Your task to perform on an android device: empty trash in the gmail app Image 0: 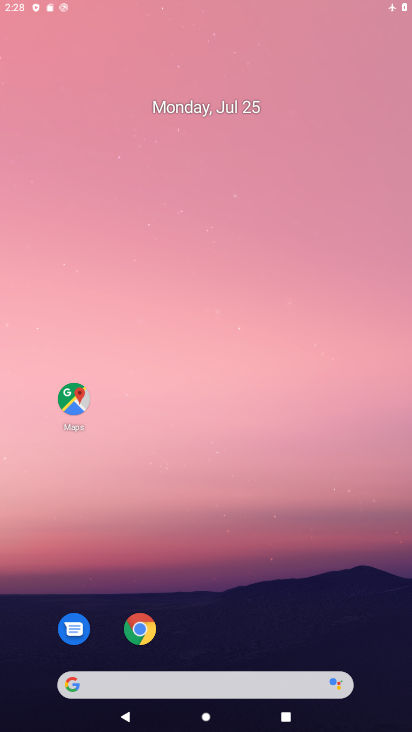
Step 0: drag from (290, 682) to (231, 185)
Your task to perform on an android device: empty trash in the gmail app Image 1: 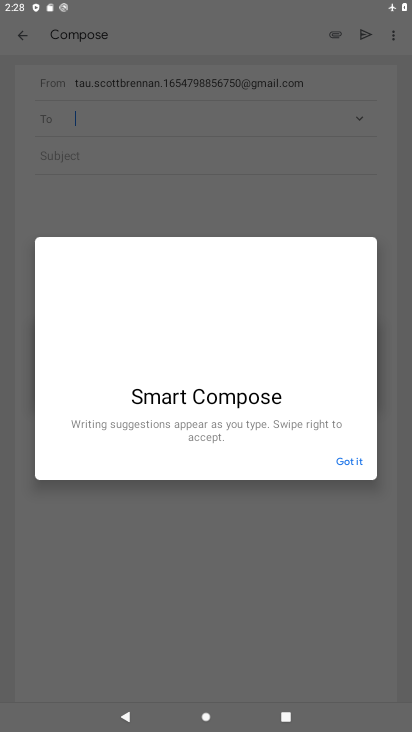
Step 1: drag from (208, 535) to (177, 217)
Your task to perform on an android device: empty trash in the gmail app Image 2: 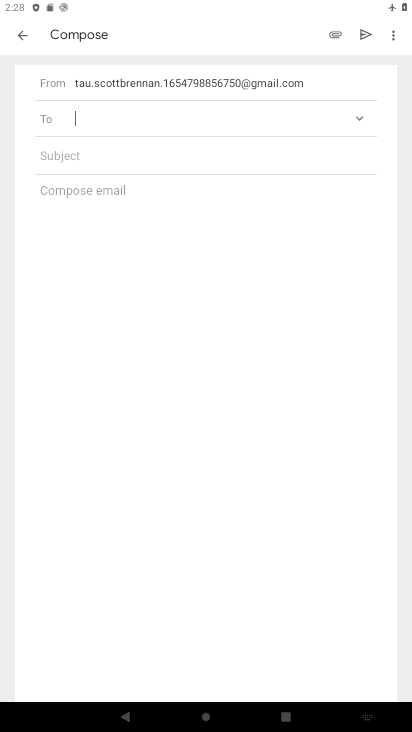
Step 2: click (10, 22)
Your task to perform on an android device: empty trash in the gmail app Image 3: 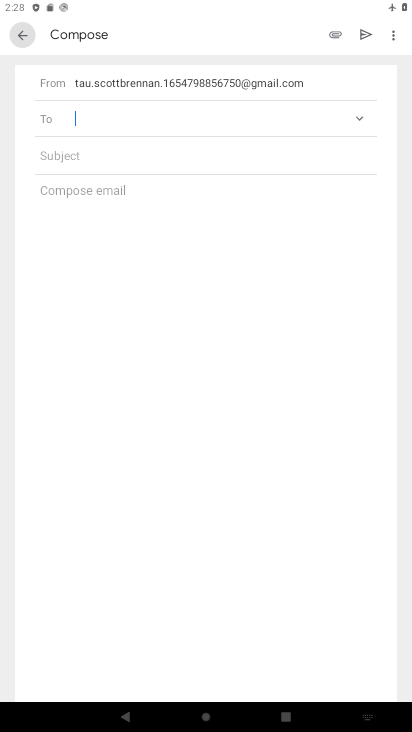
Step 3: click (19, 28)
Your task to perform on an android device: empty trash in the gmail app Image 4: 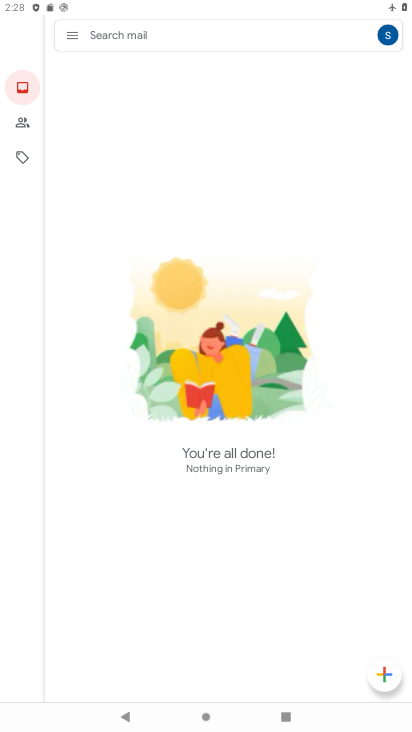
Step 4: click (67, 27)
Your task to perform on an android device: empty trash in the gmail app Image 5: 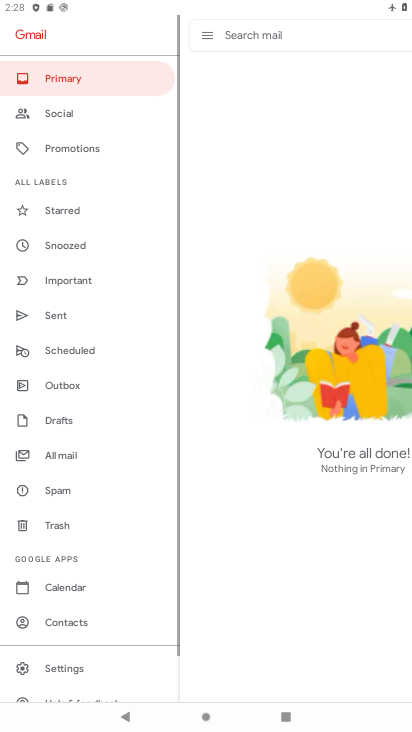
Step 5: click (76, 37)
Your task to perform on an android device: empty trash in the gmail app Image 6: 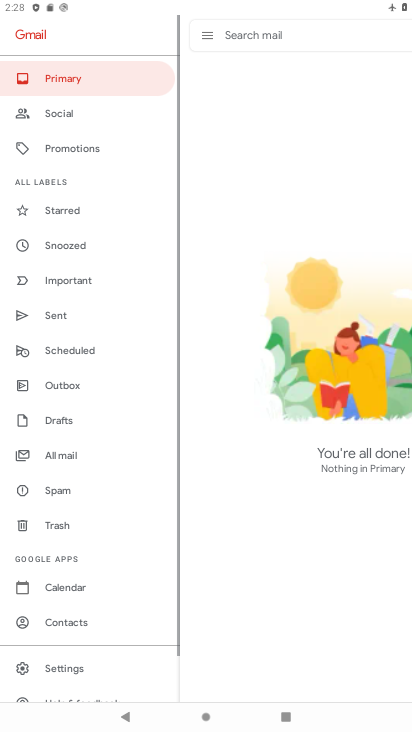
Step 6: click (77, 37)
Your task to perform on an android device: empty trash in the gmail app Image 7: 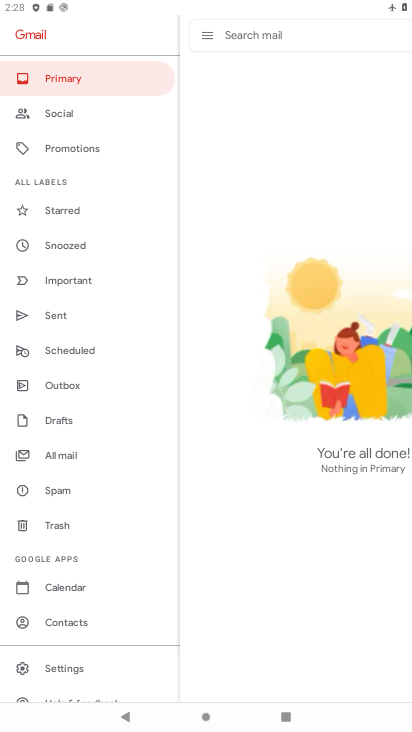
Step 7: click (77, 36)
Your task to perform on an android device: empty trash in the gmail app Image 8: 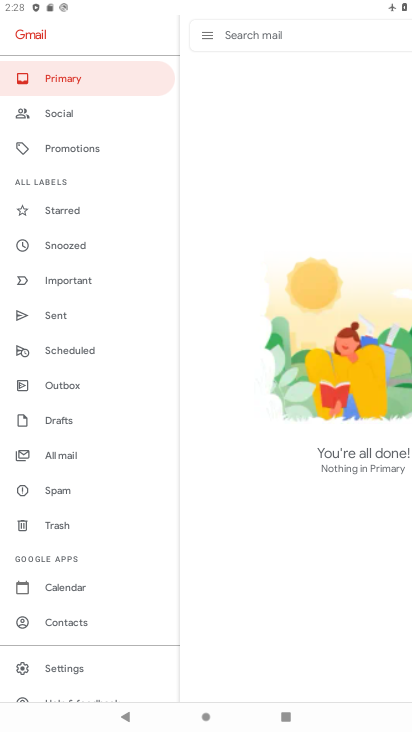
Step 8: click (68, 668)
Your task to perform on an android device: empty trash in the gmail app Image 9: 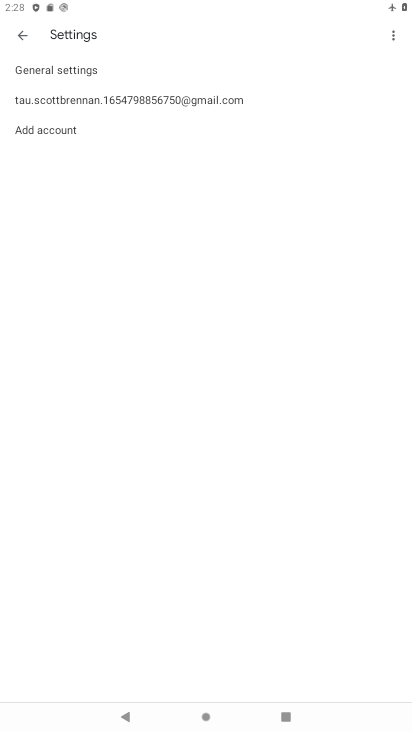
Step 9: click (58, 104)
Your task to perform on an android device: empty trash in the gmail app Image 10: 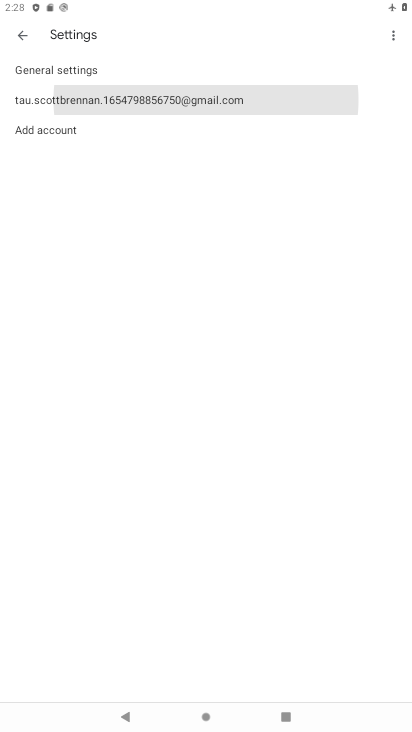
Step 10: click (58, 104)
Your task to perform on an android device: empty trash in the gmail app Image 11: 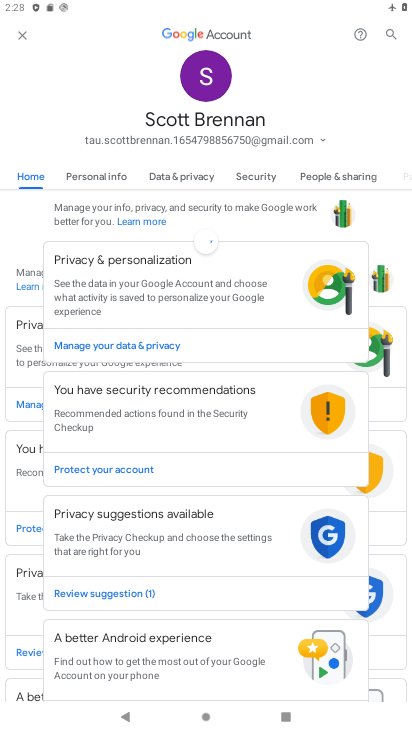
Step 11: click (15, 42)
Your task to perform on an android device: empty trash in the gmail app Image 12: 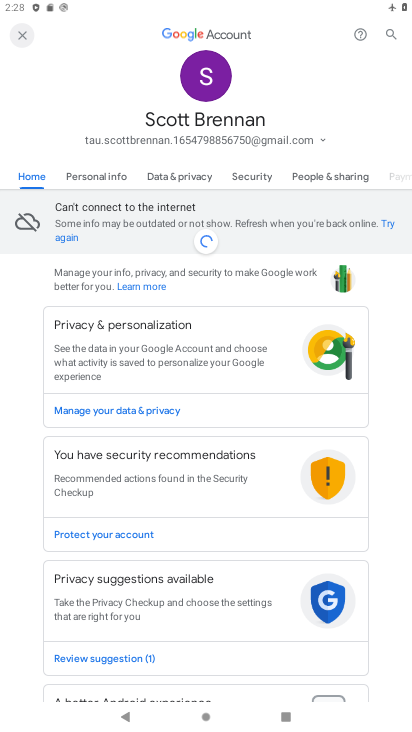
Step 12: click (15, 39)
Your task to perform on an android device: empty trash in the gmail app Image 13: 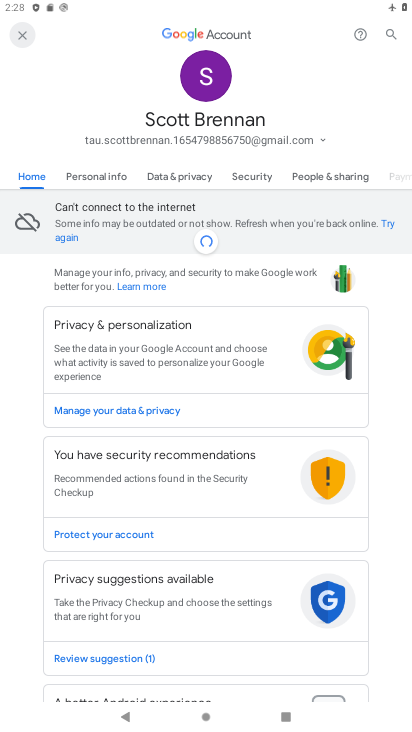
Step 13: click (15, 39)
Your task to perform on an android device: empty trash in the gmail app Image 14: 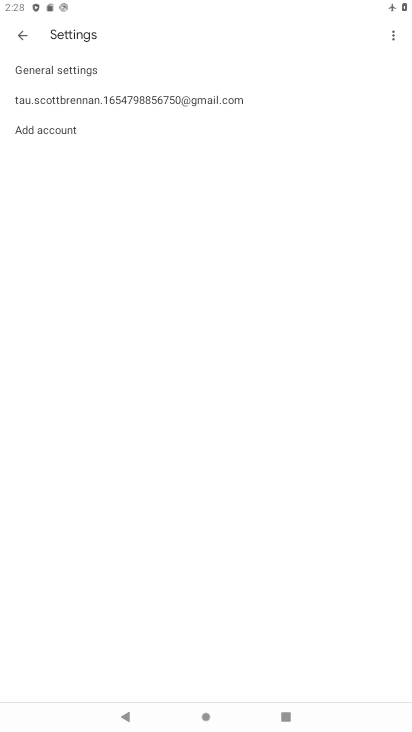
Step 14: click (12, 33)
Your task to perform on an android device: empty trash in the gmail app Image 15: 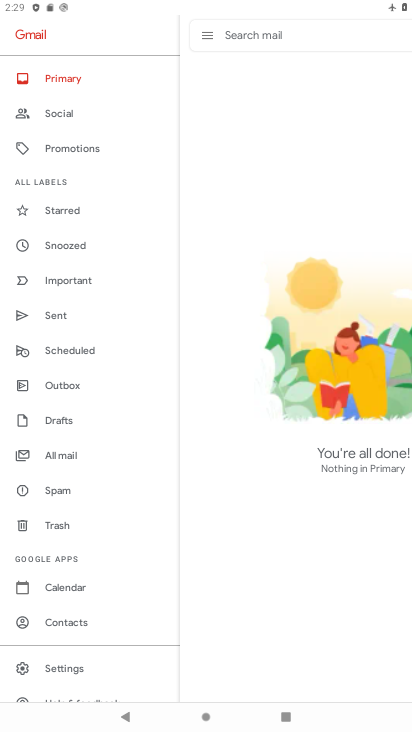
Step 15: click (51, 524)
Your task to perform on an android device: empty trash in the gmail app Image 16: 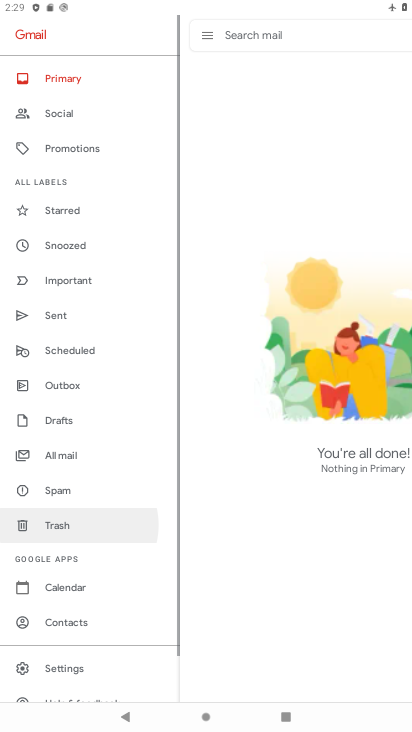
Step 16: click (51, 524)
Your task to perform on an android device: empty trash in the gmail app Image 17: 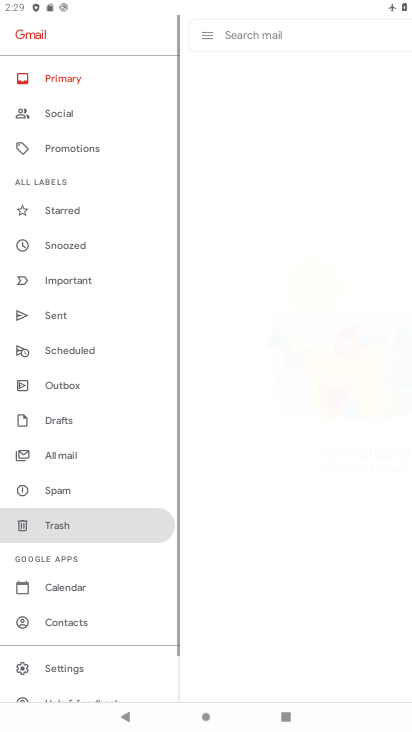
Step 17: click (51, 524)
Your task to perform on an android device: empty trash in the gmail app Image 18: 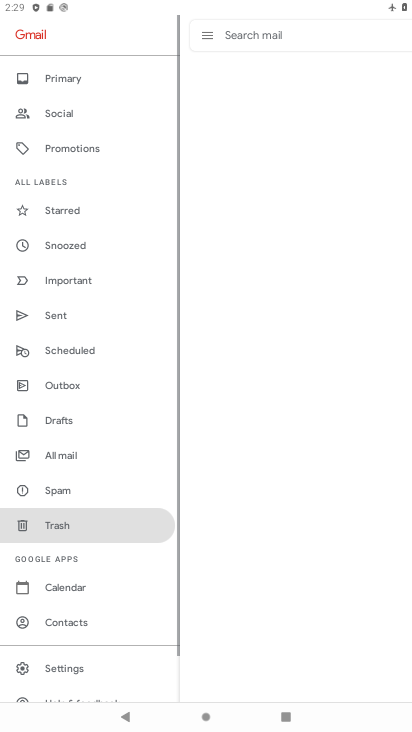
Step 18: click (53, 524)
Your task to perform on an android device: empty trash in the gmail app Image 19: 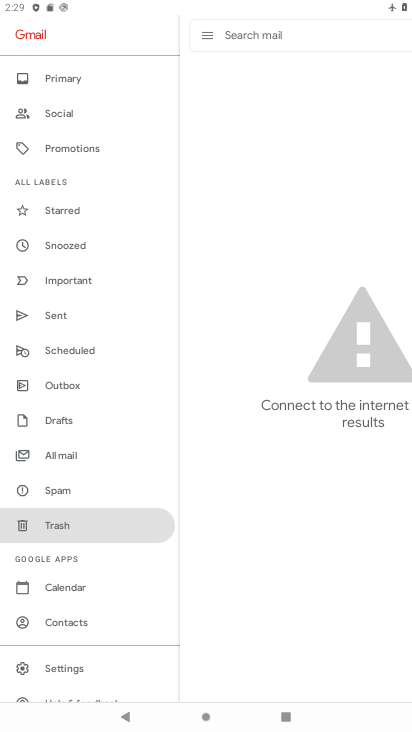
Step 19: task complete